Your task to perform on an android device: set the stopwatch Image 0: 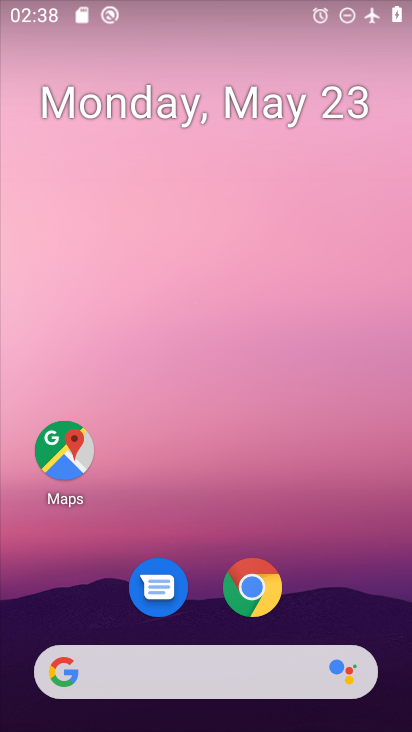
Step 0: drag from (355, 602) to (307, 90)
Your task to perform on an android device: set the stopwatch Image 1: 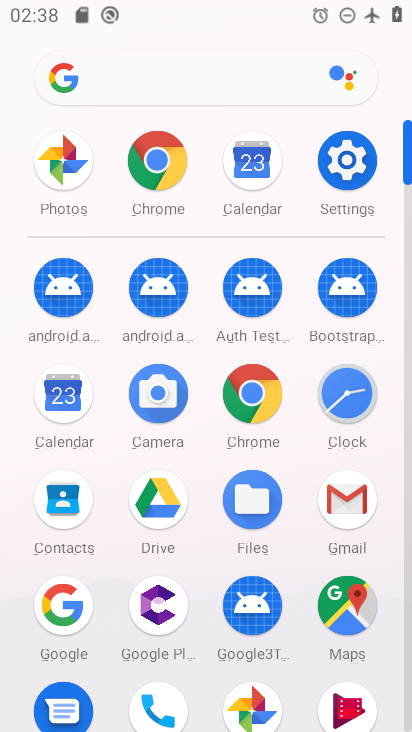
Step 1: click (363, 389)
Your task to perform on an android device: set the stopwatch Image 2: 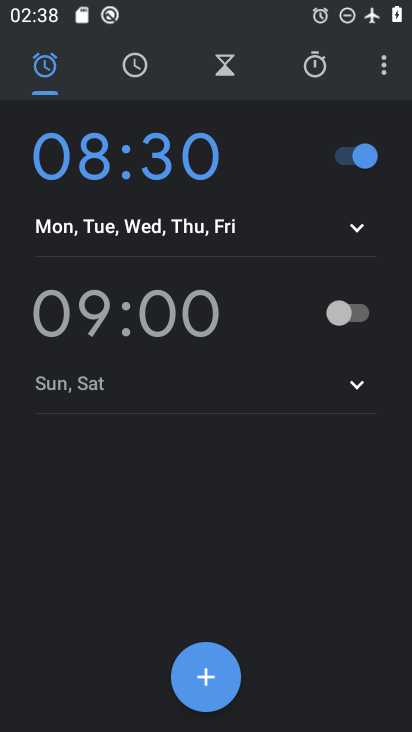
Step 2: click (318, 81)
Your task to perform on an android device: set the stopwatch Image 3: 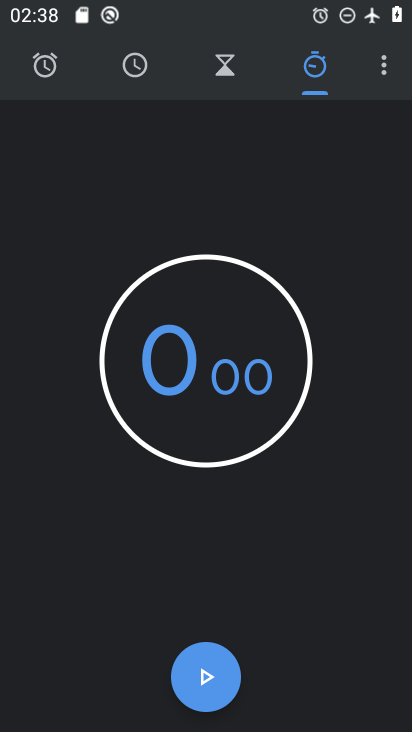
Step 3: task complete